Your task to perform on an android device: clear history in the chrome app Image 0: 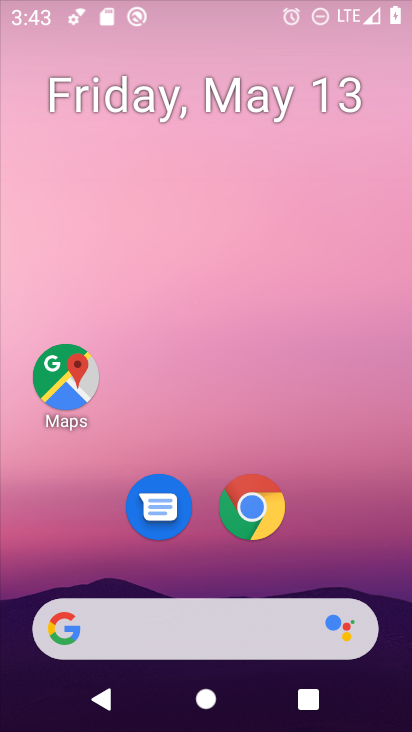
Step 0: drag from (330, 502) to (281, 176)
Your task to perform on an android device: clear history in the chrome app Image 1: 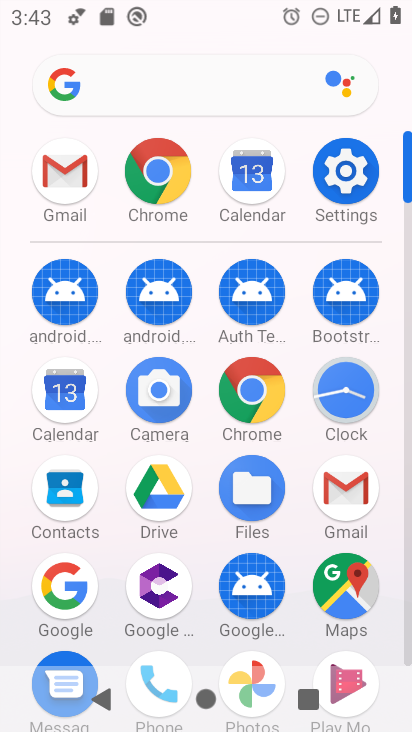
Step 1: click (138, 181)
Your task to perform on an android device: clear history in the chrome app Image 2: 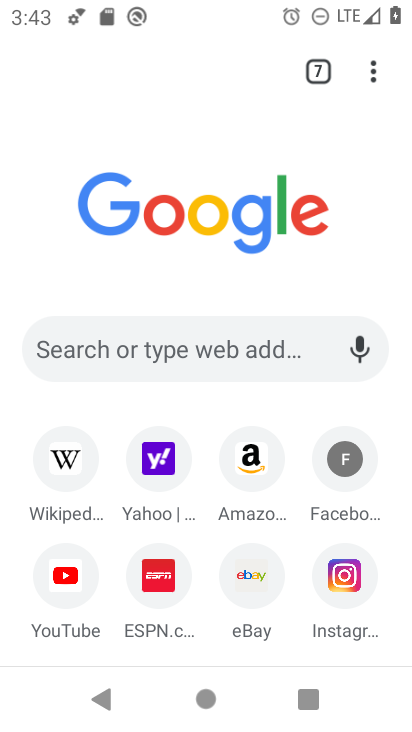
Step 2: click (364, 72)
Your task to perform on an android device: clear history in the chrome app Image 3: 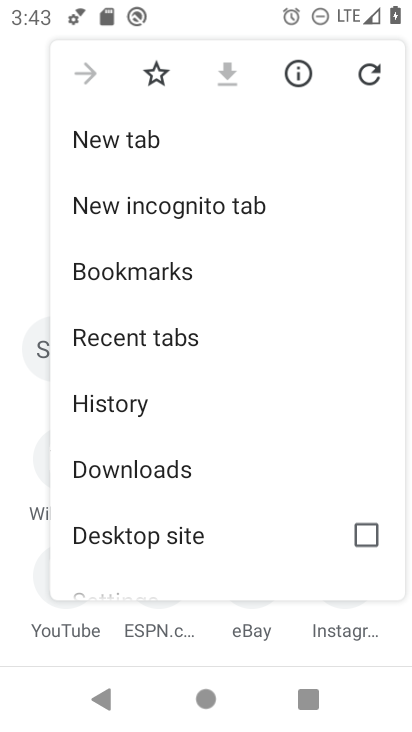
Step 3: drag from (249, 474) to (234, 71)
Your task to perform on an android device: clear history in the chrome app Image 4: 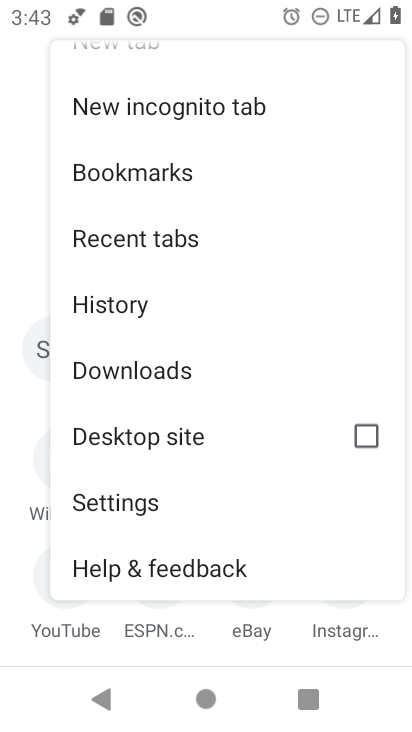
Step 4: click (179, 305)
Your task to perform on an android device: clear history in the chrome app Image 5: 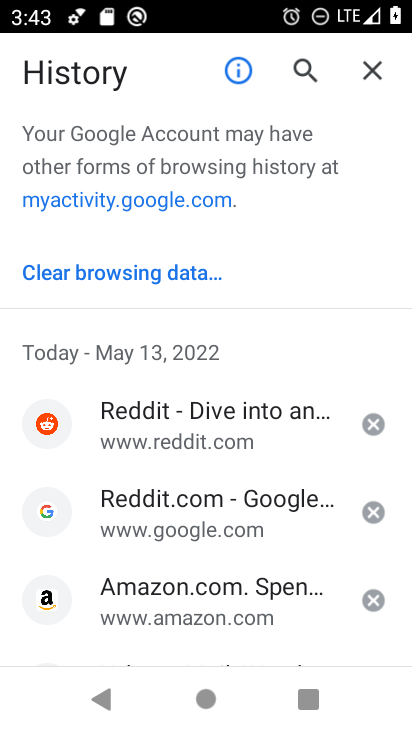
Step 5: click (178, 272)
Your task to perform on an android device: clear history in the chrome app Image 6: 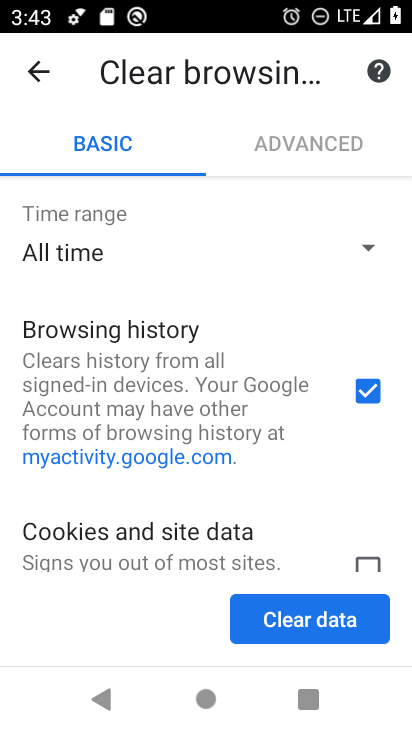
Step 6: drag from (213, 437) to (205, 233)
Your task to perform on an android device: clear history in the chrome app Image 7: 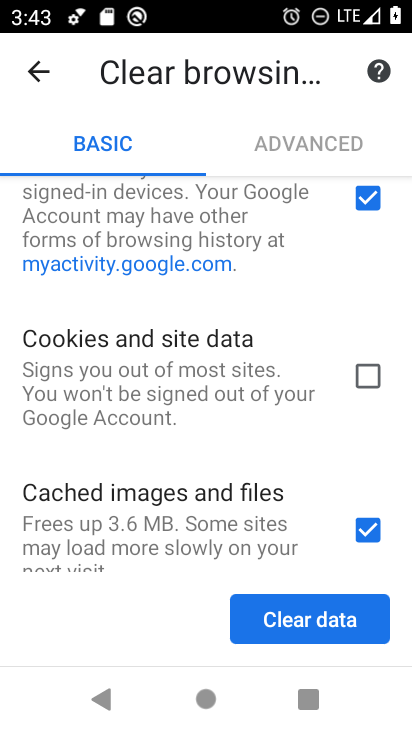
Step 7: drag from (198, 477) to (199, 220)
Your task to perform on an android device: clear history in the chrome app Image 8: 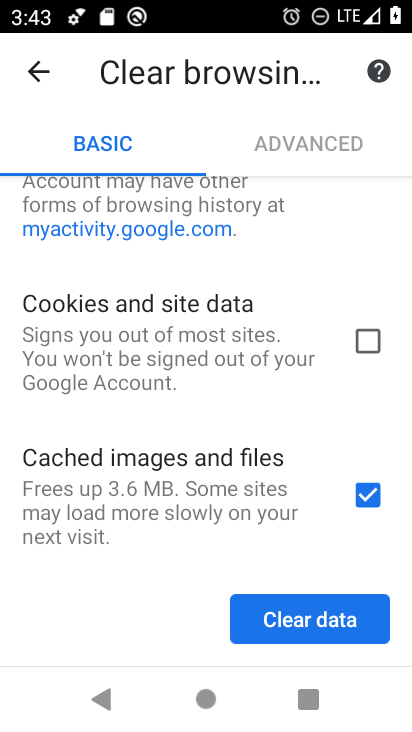
Step 8: drag from (170, 562) to (194, 290)
Your task to perform on an android device: clear history in the chrome app Image 9: 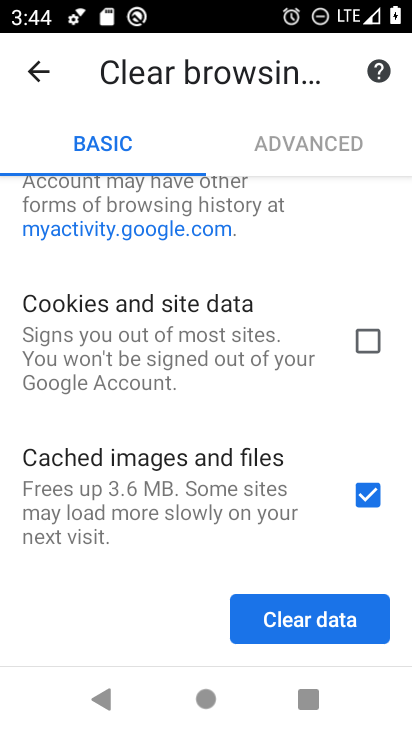
Step 9: press back button
Your task to perform on an android device: clear history in the chrome app Image 10: 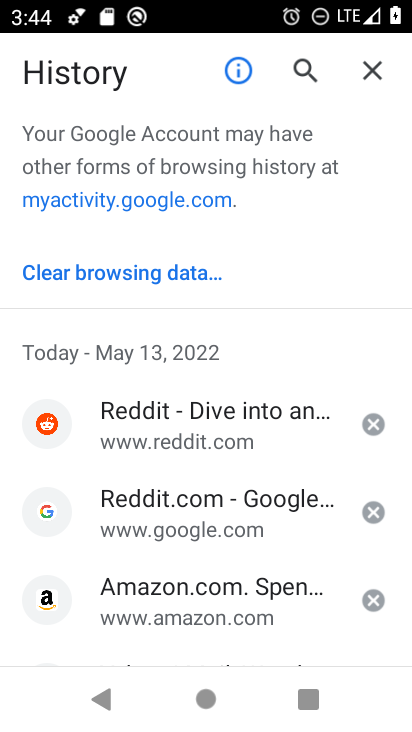
Step 10: click (202, 269)
Your task to perform on an android device: clear history in the chrome app Image 11: 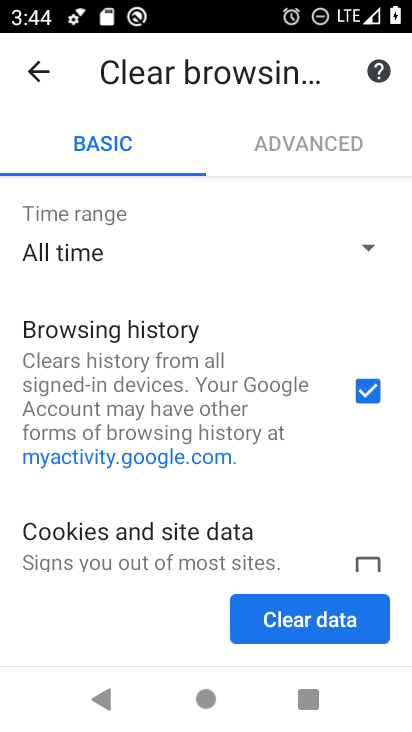
Step 11: click (272, 617)
Your task to perform on an android device: clear history in the chrome app Image 12: 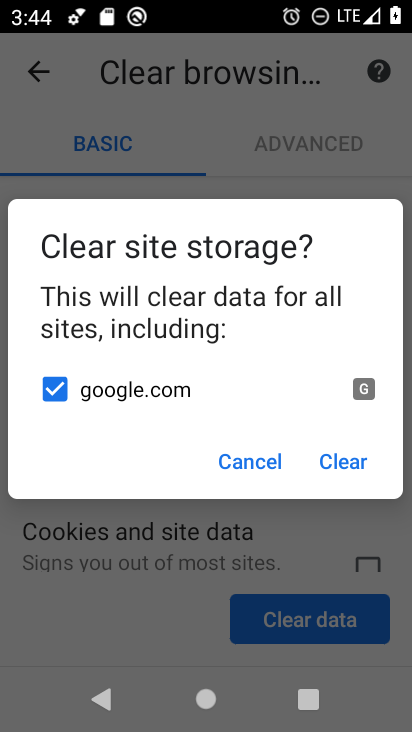
Step 12: click (346, 457)
Your task to perform on an android device: clear history in the chrome app Image 13: 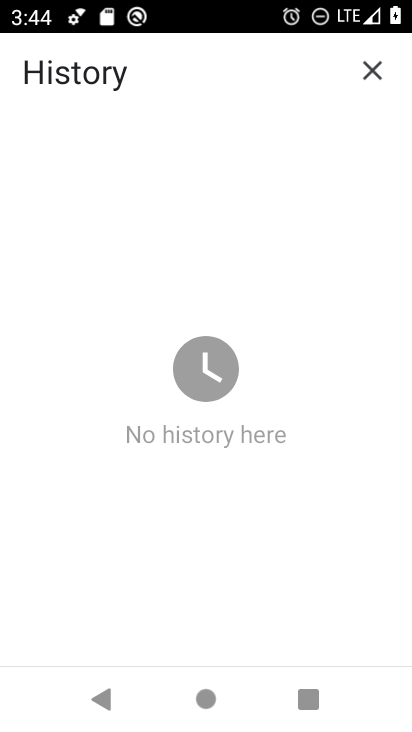
Step 13: task complete